Your task to perform on an android device: Set the phone to "Do not disturb". Image 0: 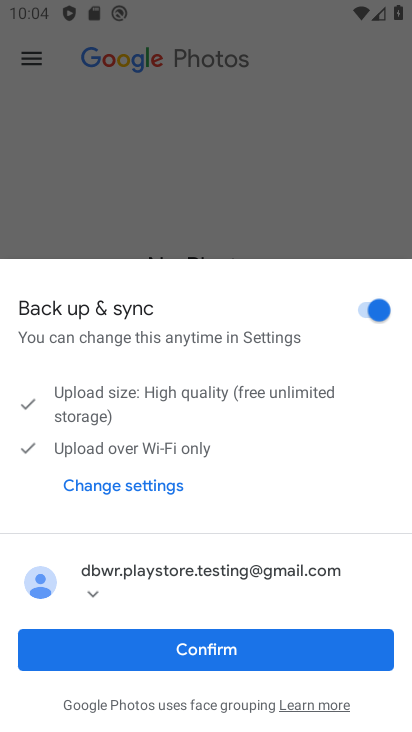
Step 0: press home button
Your task to perform on an android device: Set the phone to "Do not disturb". Image 1: 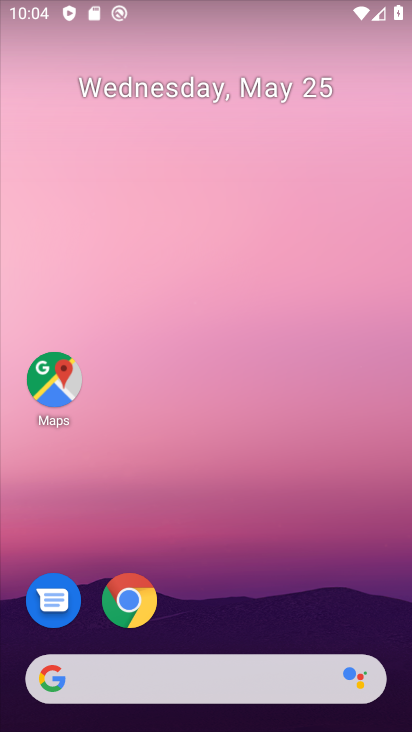
Step 1: drag from (189, 628) to (290, 176)
Your task to perform on an android device: Set the phone to "Do not disturb". Image 2: 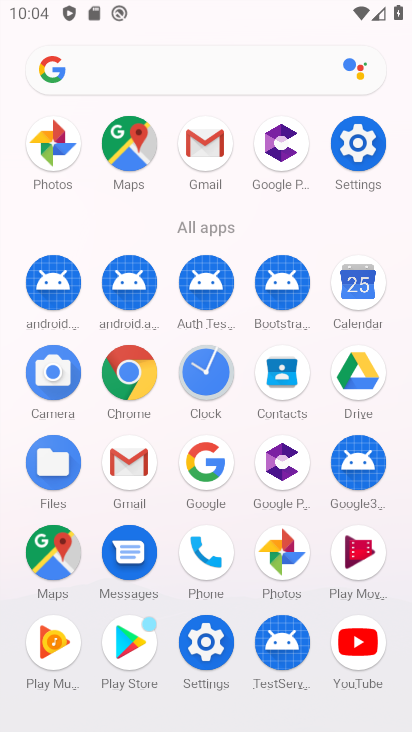
Step 2: click (207, 643)
Your task to perform on an android device: Set the phone to "Do not disturb". Image 3: 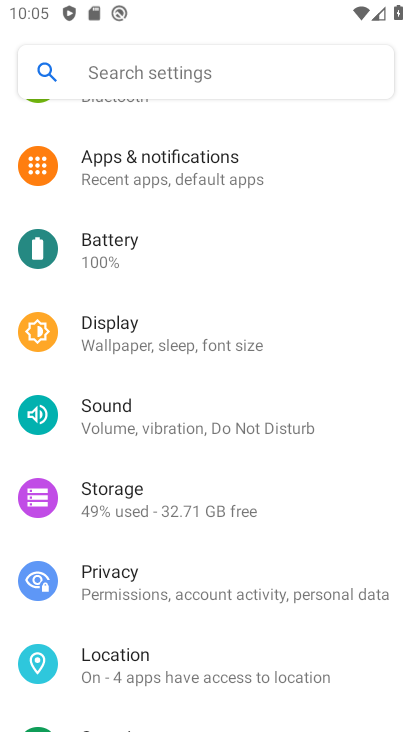
Step 3: click (162, 185)
Your task to perform on an android device: Set the phone to "Do not disturb". Image 4: 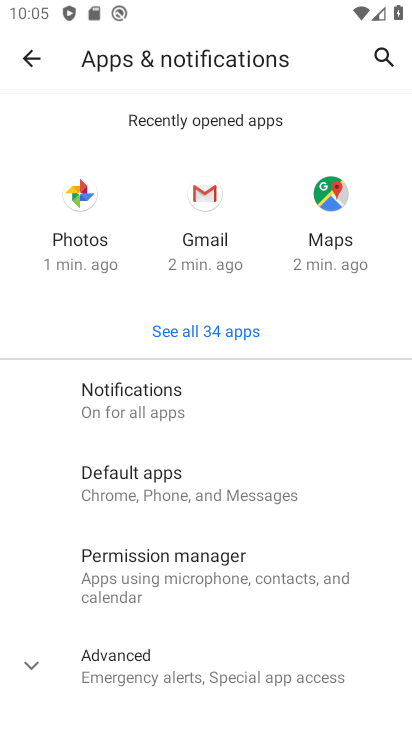
Step 4: click (213, 410)
Your task to perform on an android device: Set the phone to "Do not disturb". Image 5: 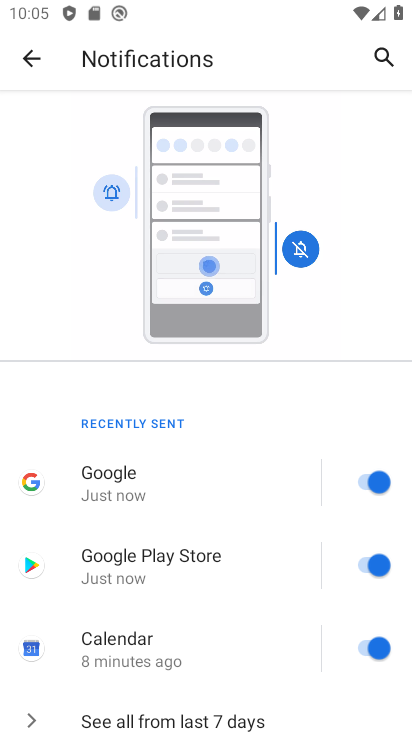
Step 5: drag from (169, 694) to (285, 215)
Your task to perform on an android device: Set the phone to "Do not disturb". Image 6: 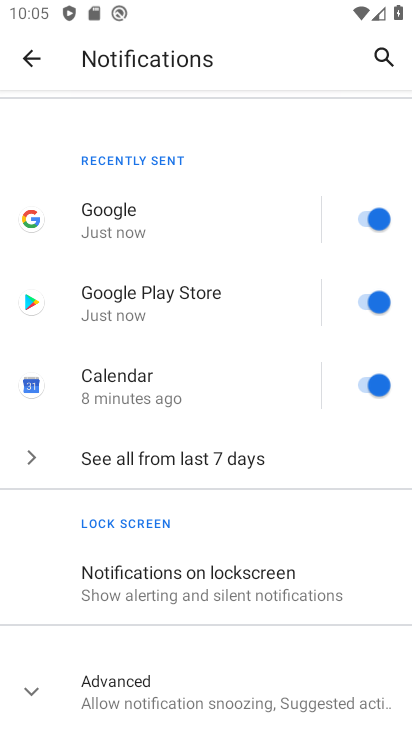
Step 6: click (178, 673)
Your task to perform on an android device: Set the phone to "Do not disturb". Image 7: 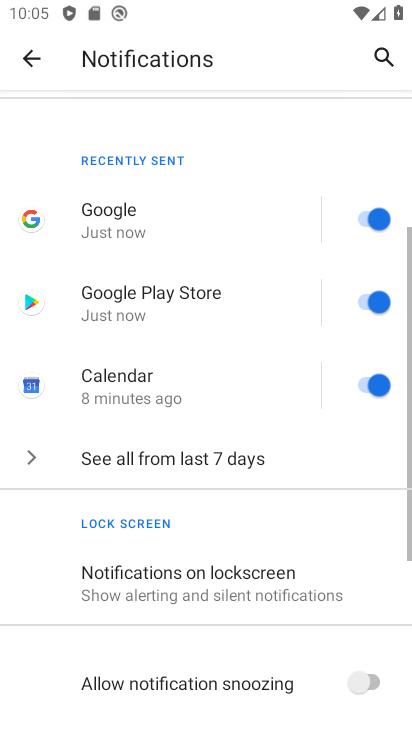
Step 7: drag from (181, 648) to (286, 229)
Your task to perform on an android device: Set the phone to "Do not disturb". Image 8: 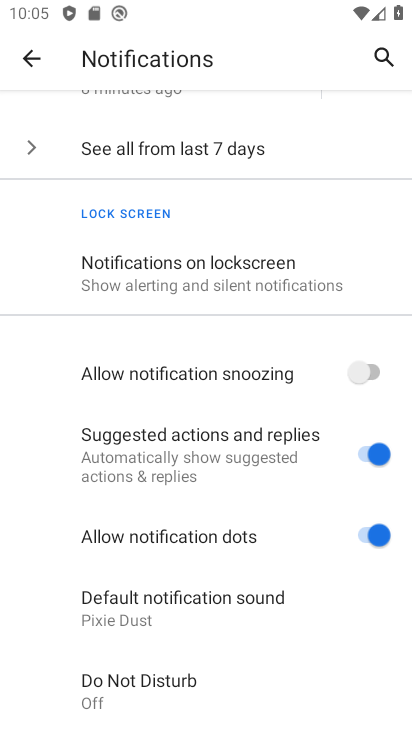
Step 8: click (194, 690)
Your task to perform on an android device: Set the phone to "Do not disturb". Image 9: 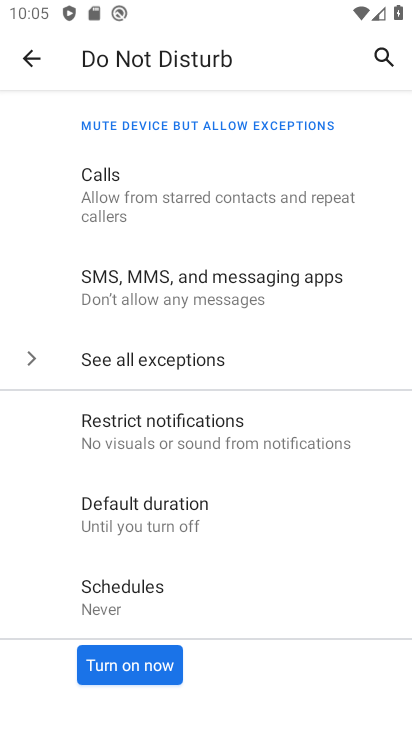
Step 9: click (137, 648)
Your task to perform on an android device: Set the phone to "Do not disturb". Image 10: 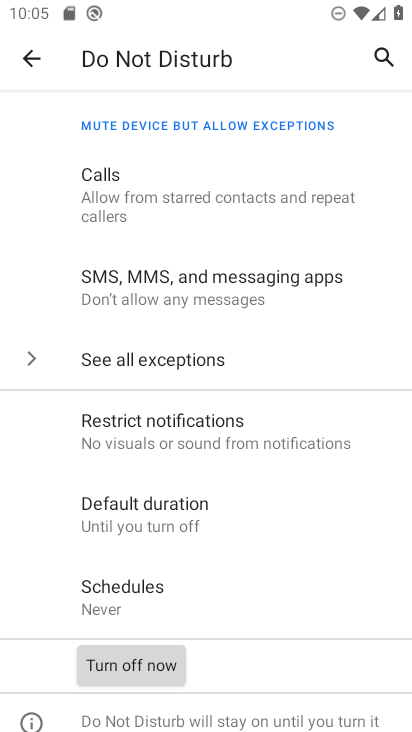
Step 10: task complete